Your task to perform on an android device: Go to Yahoo.com Image 0: 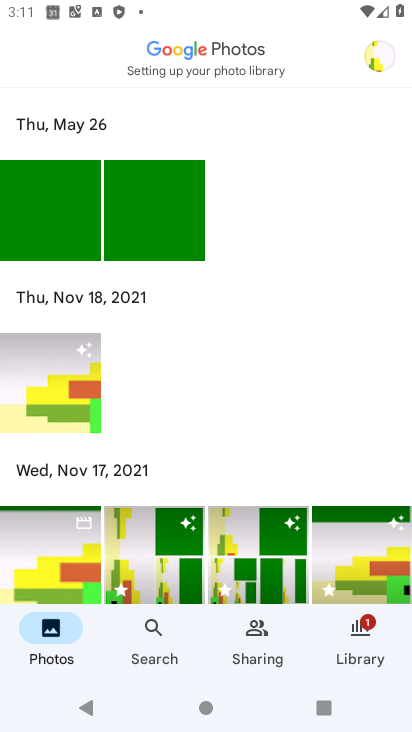
Step 0: press home button
Your task to perform on an android device: Go to Yahoo.com Image 1: 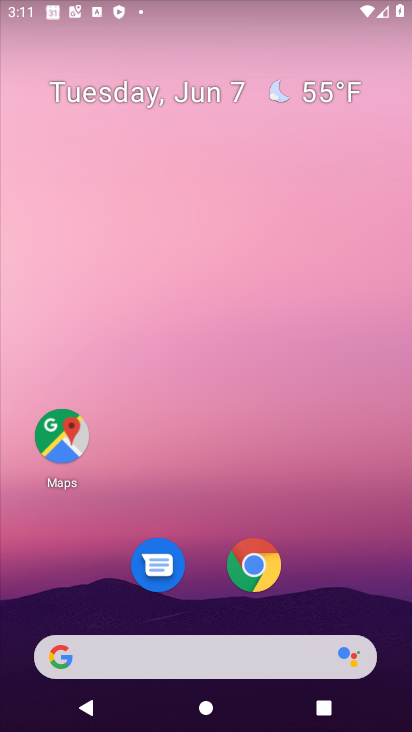
Step 1: drag from (244, 660) to (285, 101)
Your task to perform on an android device: Go to Yahoo.com Image 2: 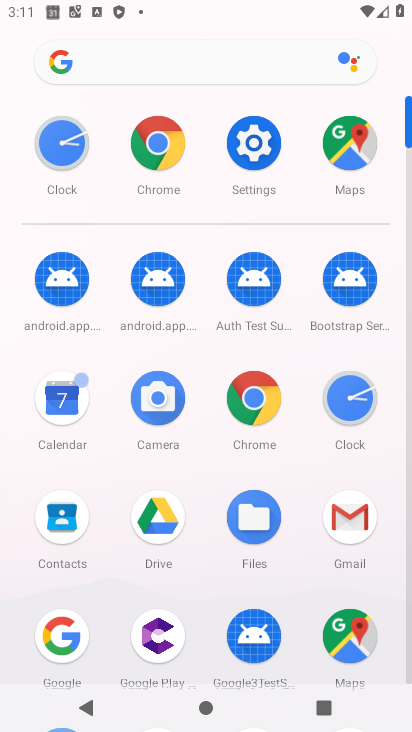
Step 2: click (267, 405)
Your task to perform on an android device: Go to Yahoo.com Image 3: 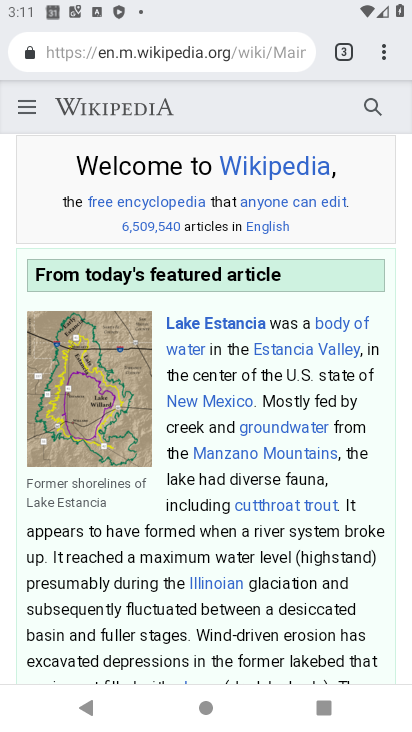
Step 3: click (377, 49)
Your task to perform on an android device: Go to Yahoo.com Image 4: 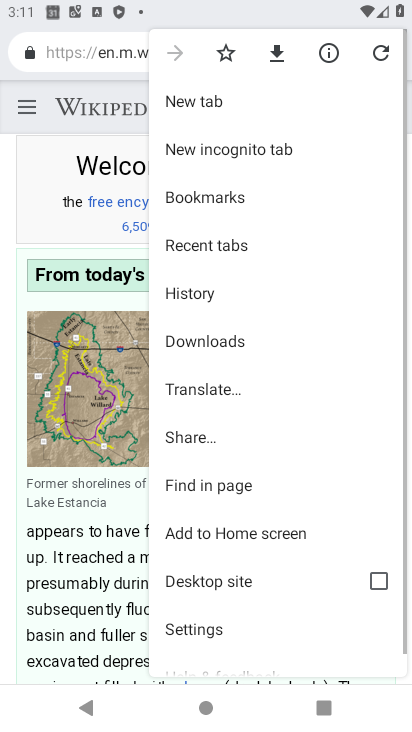
Step 4: click (267, 109)
Your task to perform on an android device: Go to Yahoo.com Image 5: 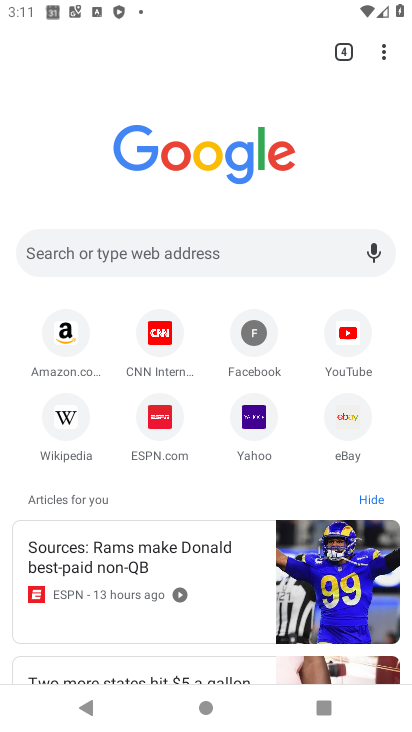
Step 5: click (264, 428)
Your task to perform on an android device: Go to Yahoo.com Image 6: 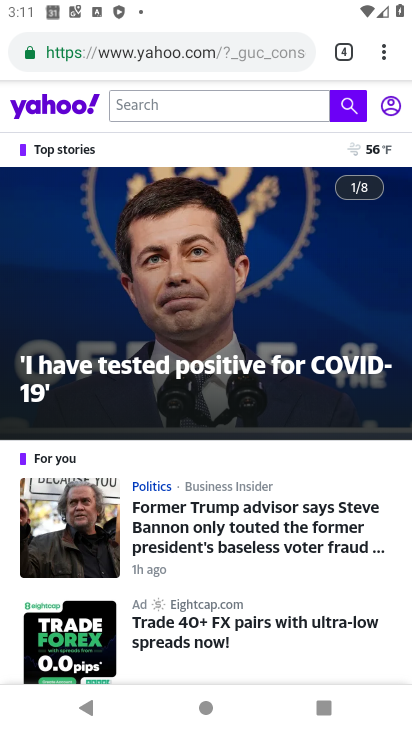
Step 6: task complete